Your task to perform on an android device: toggle javascript in the chrome app Image 0: 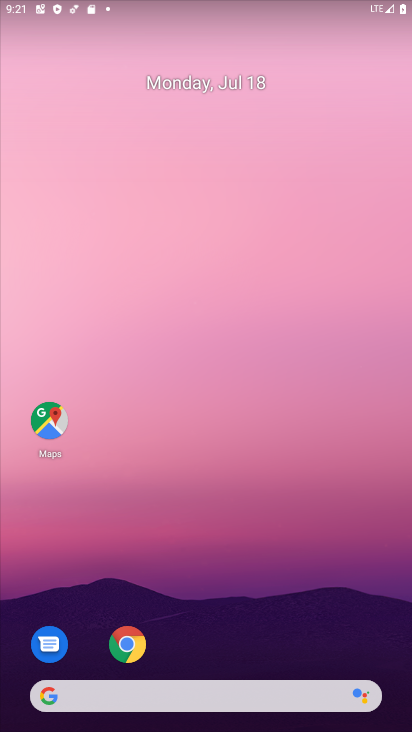
Step 0: click (139, 642)
Your task to perform on an android device: toggle javascript in the chrome app Image 1: 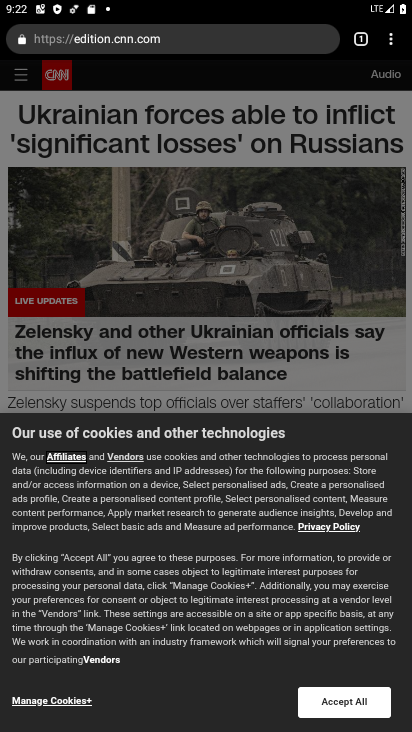
Step 1: drag from (387, 32) to (260, 429)
Your task to perform on an android device: toggle javascript in the chrome app Image 2: 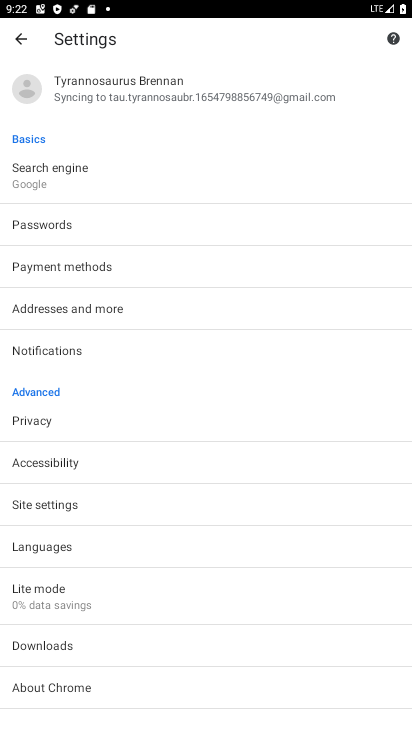
Step 2: click (40, 510)
Your task to perform on an android device: toggle javascript in the chrome app Image 3: 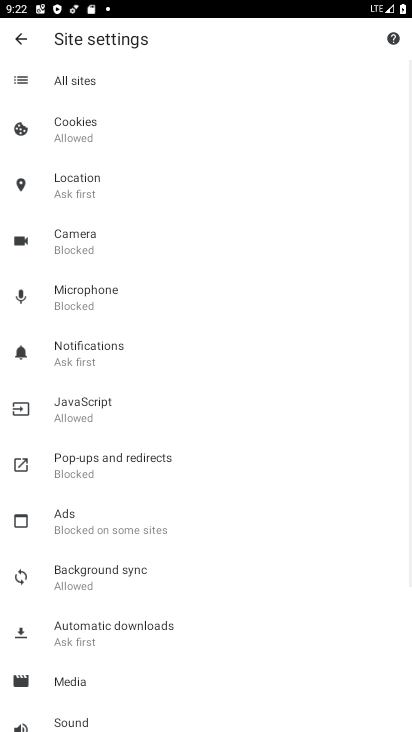
Step 3: click (48, 409)
Your task to perform on an android device: toggle javascript in the chrome app Image 4: 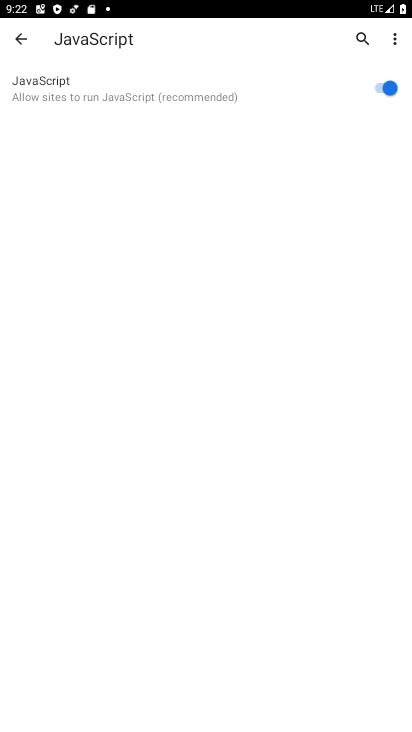
Step 4: click (389, 80)
Your task to perform on an android device: toggle javascript in the chrome app Image 5: 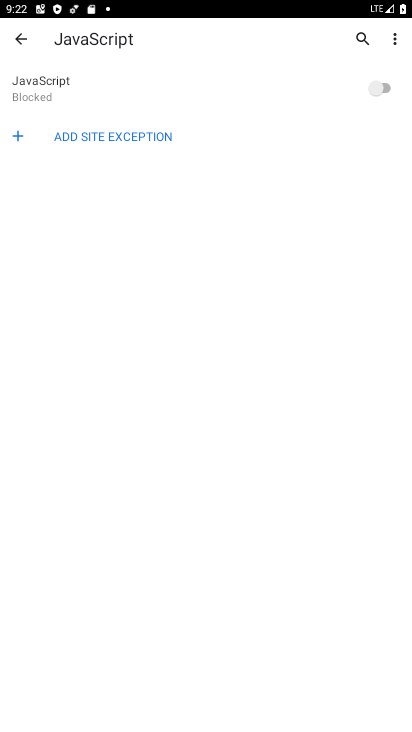
Step 5: task complete